Your task to perform on an android device: Open calendar and show me the third week of next month Image 0: 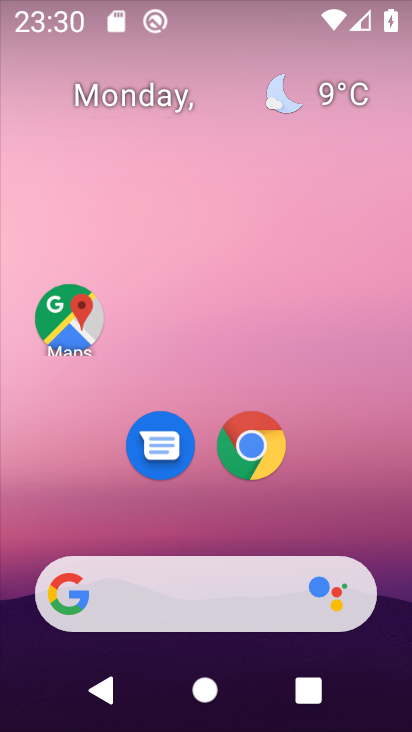
Step 0: drag from (295, 599) to (277, 18)
Your task to perform on an android device: Open calendar and show me the third week of next month Image 1: 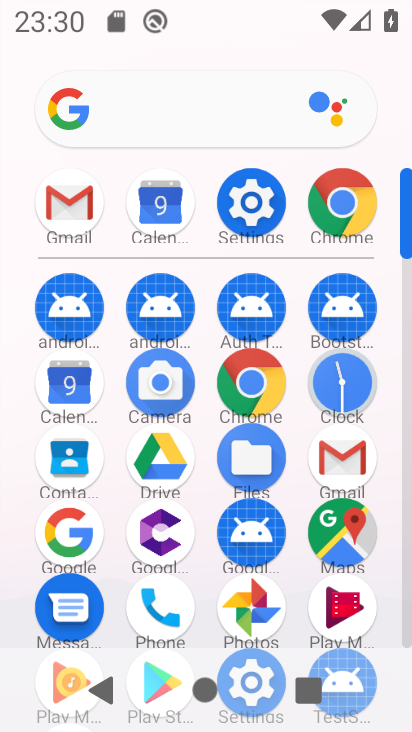
Step 1: click (54, 384)
Your task to perform on an android device: Open calendar and show me the third week of next month Image 2: 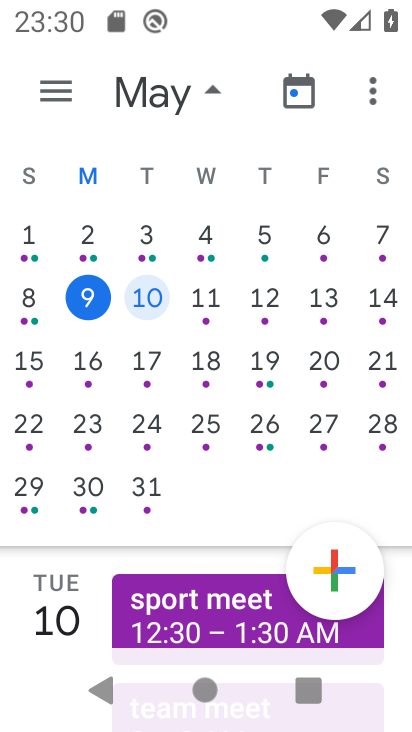
Step 2: drag from (328, 425) to (72, 410)
Your task to perform on an android device: Open calendar and show me the third week of next month Image 3: 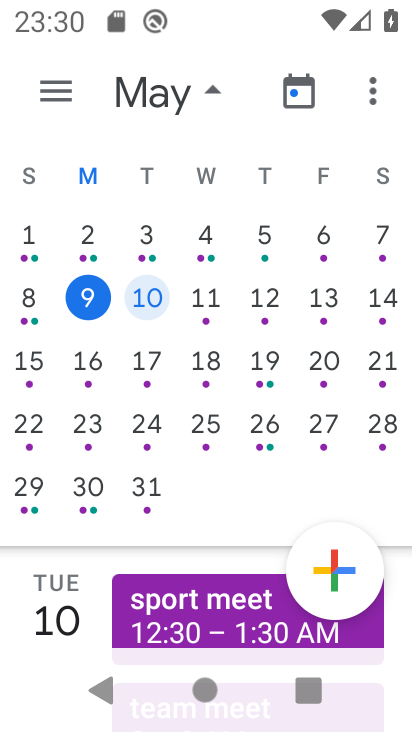
Step 3: drag from (380, 360) to (23, 392)
Your task to perform on an android device: Open calendar and show me the third week of next month Image 4: 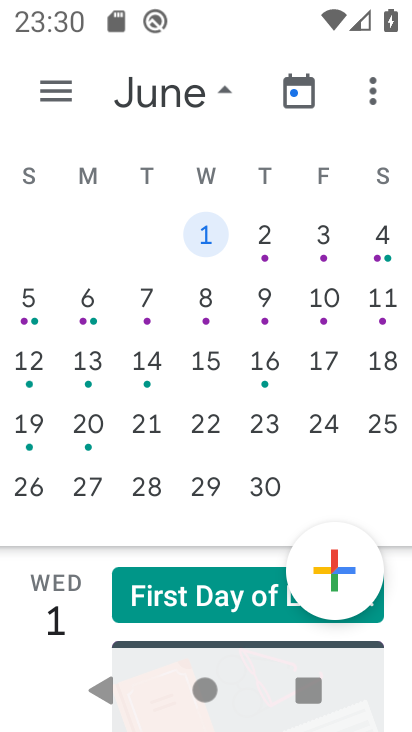
Step 4: click (209, 364)
Your task to perform on an android device: Open calendar and show me the third week of next month Image 5: 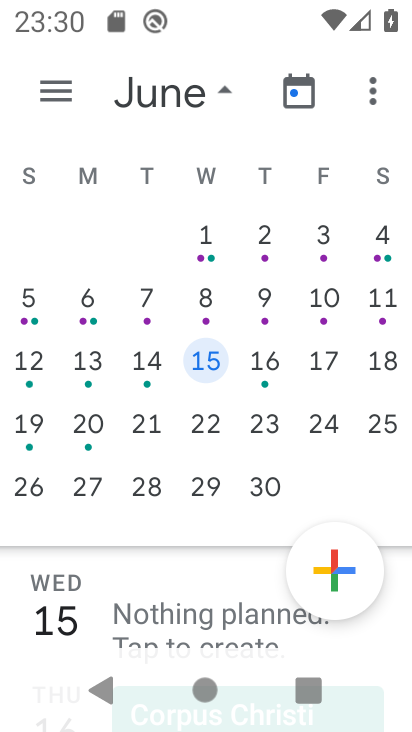
Step 5: task complete